Your task to perform on an android device: Go to CNN.com Image 0: 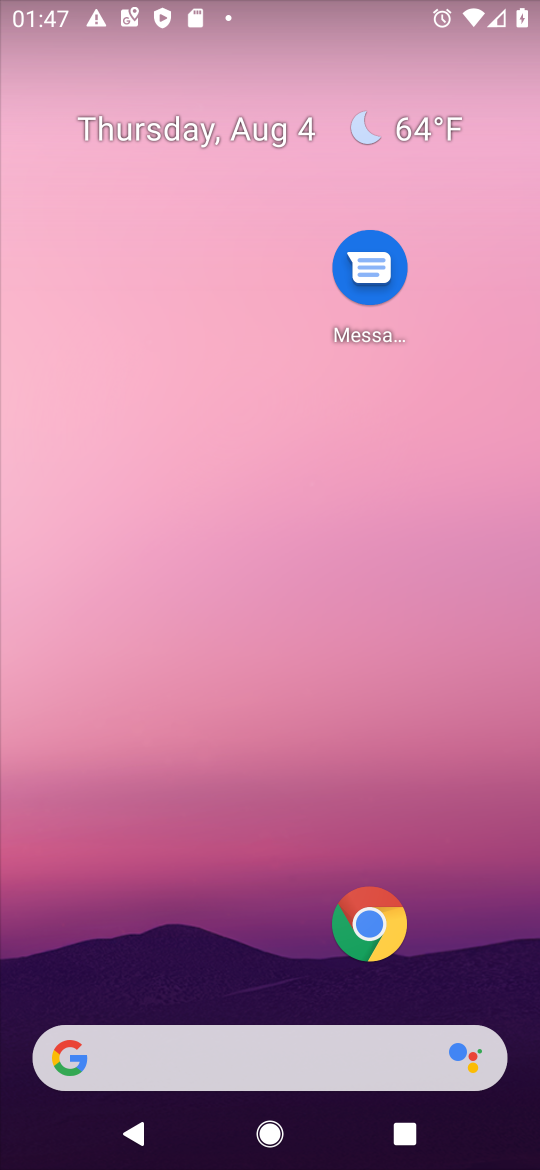
Step 0: click (187, 1080)
Your task to perform on an android device: Go to CNN.com Image 1: 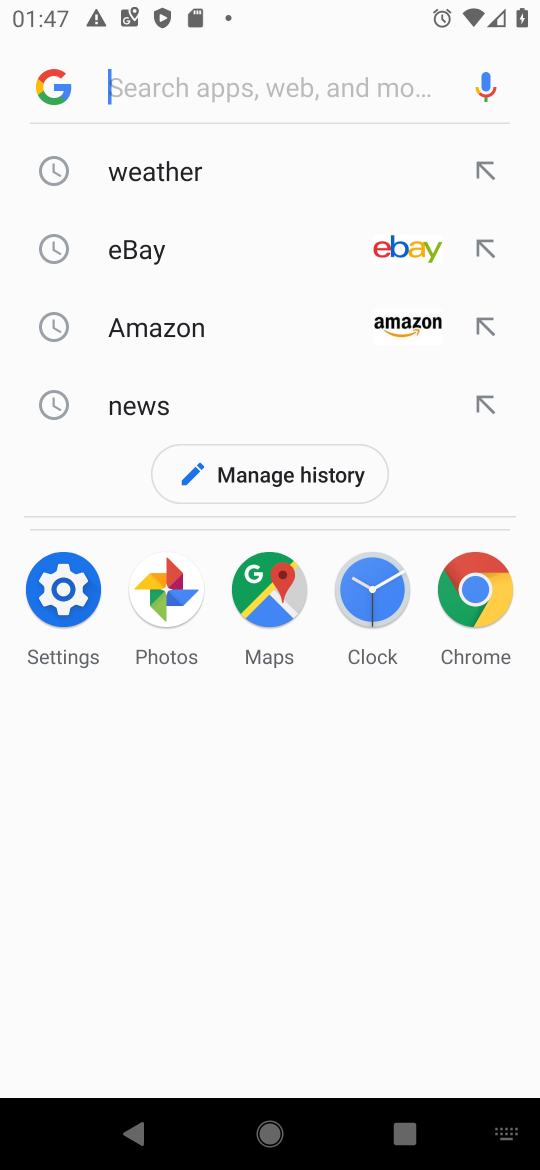
Step 1: type "CNN.com"
Your task to perform on an android device: Go to CNN.com Image 2: 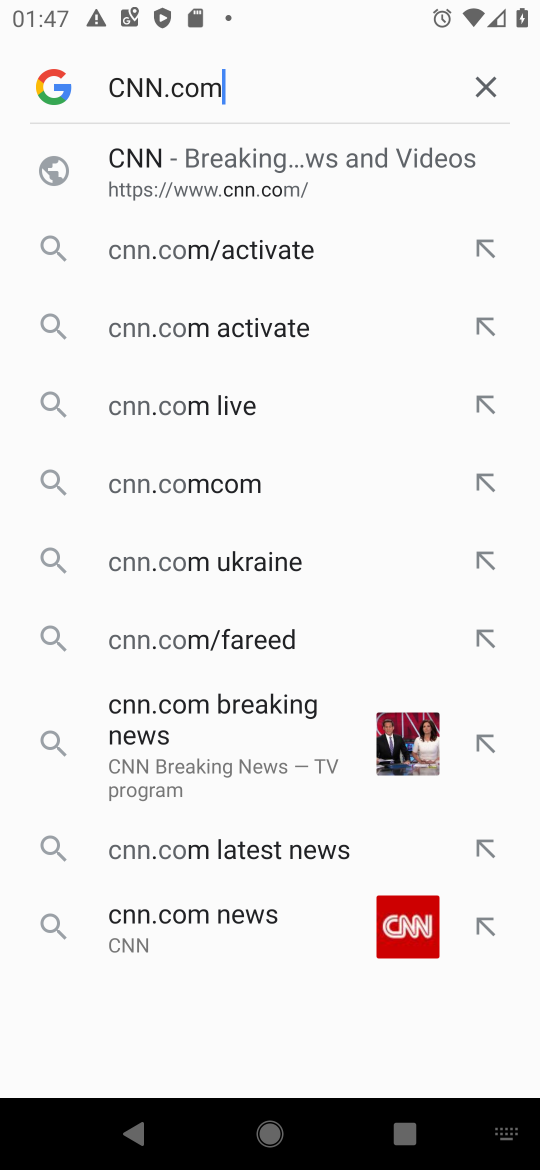
Step 2: type ""
Your task to perform on an android device: Go to CNN.com Image 3: 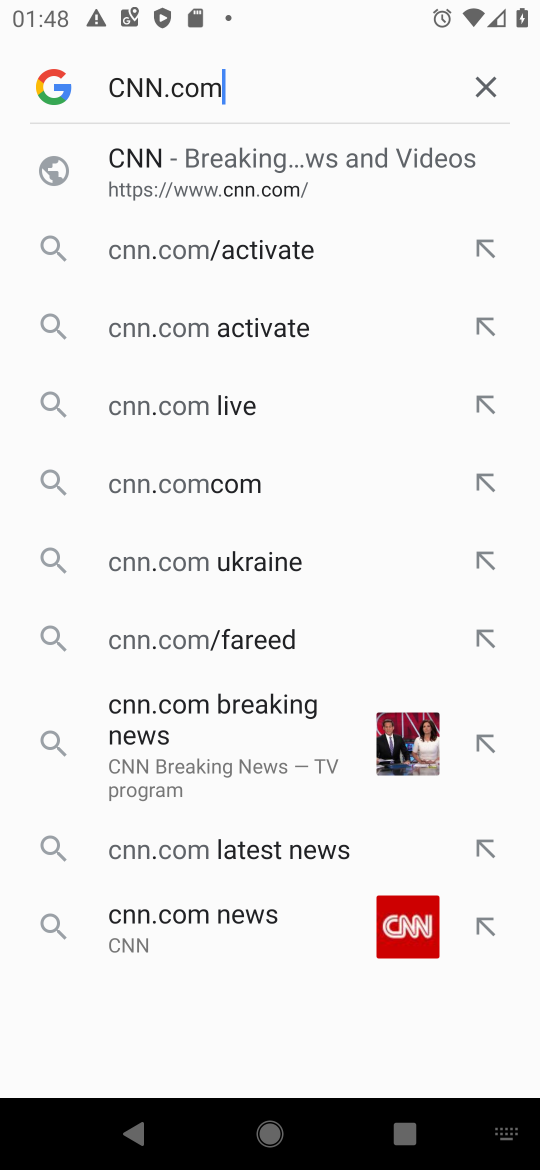
Step 3: click (178, 166)
Your task to perform on an android device: Go to CNN.com Image 4: 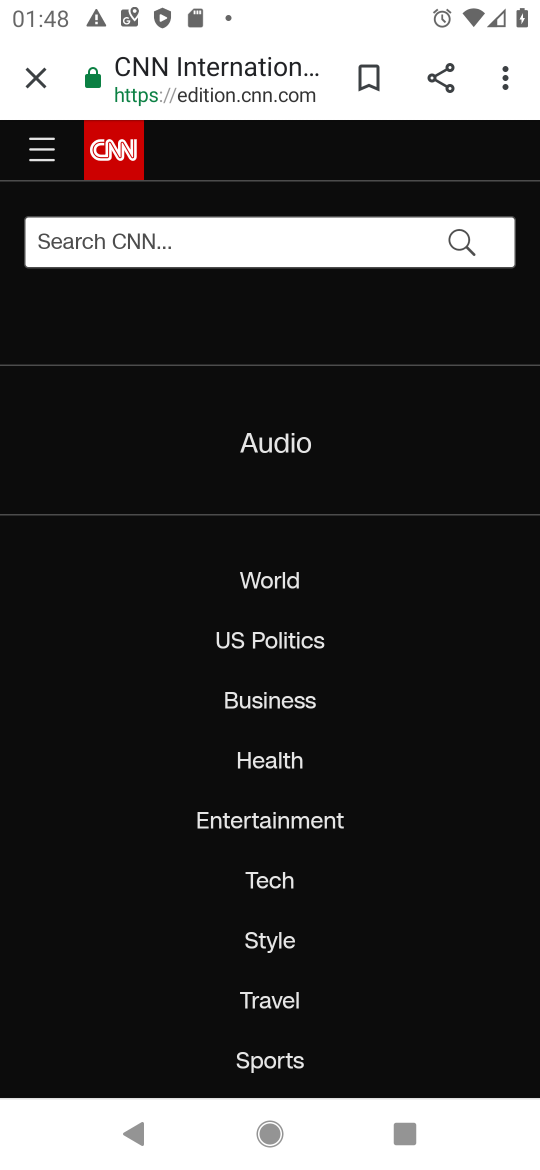
Step 4: task complete